Your task to perform on an android device: Search for Mexican restaurants on Maps Image 0: 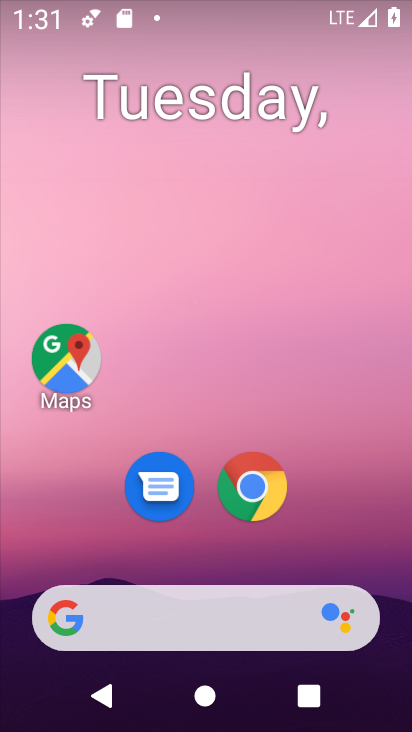
Step 0: press home button
Your task to perform on an android device: Search for Mexican restaurants on Maps Image 1: 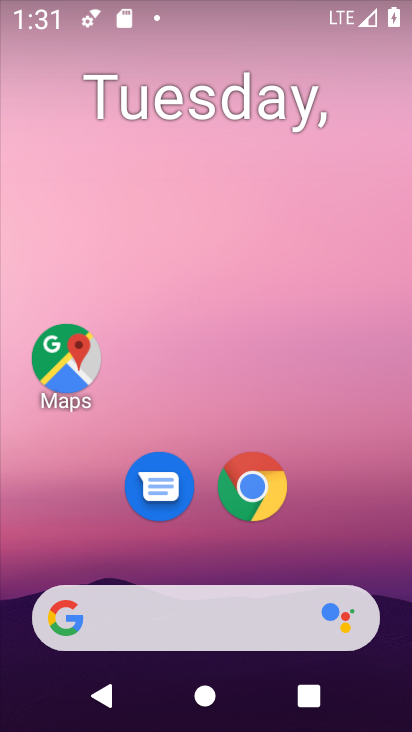
Step 1: drag from (330, 528) to (346, 66)
Your task to perform on an android device: Search for Mexican restaurants on Maps Image 2: 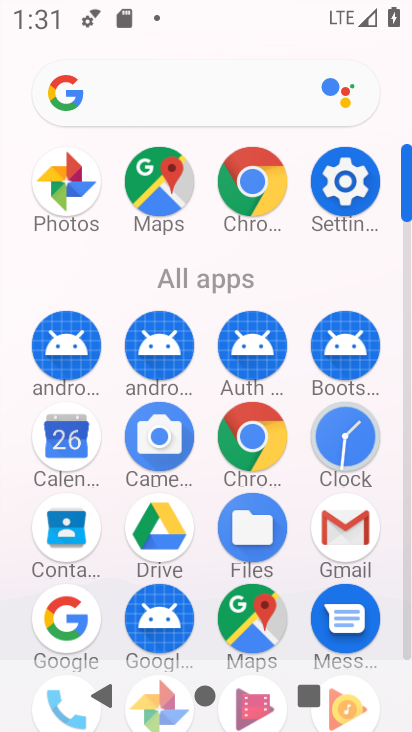
Step 2: click (153, 201)
Your task to perform on an android device: Search for Mexican restaurants on Maps Image 3: 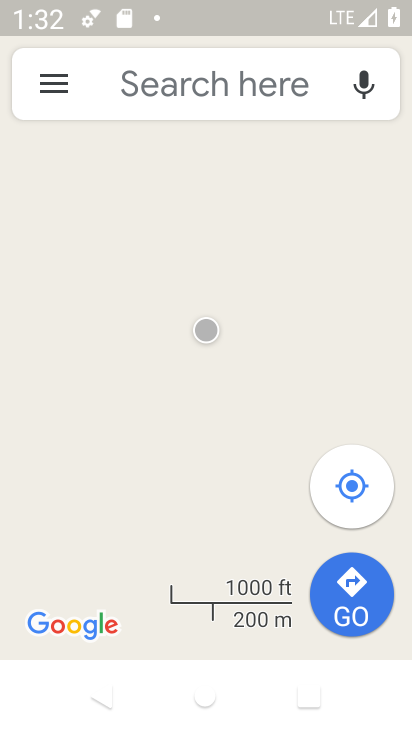
Step 3: click (186, 87)
Your task to perform on an android device: Search for Mexican restaurants on Maps Image 4: 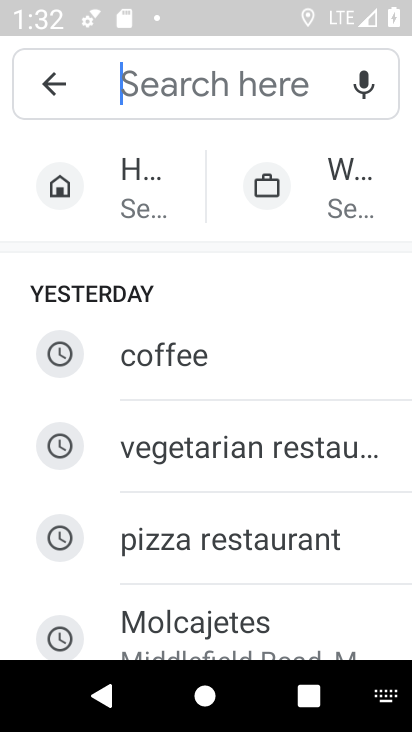
Step 4: type "mexcian restaurants"
Your task to perform on an android device: Search for Mexican restaurants on Maps Image 5: 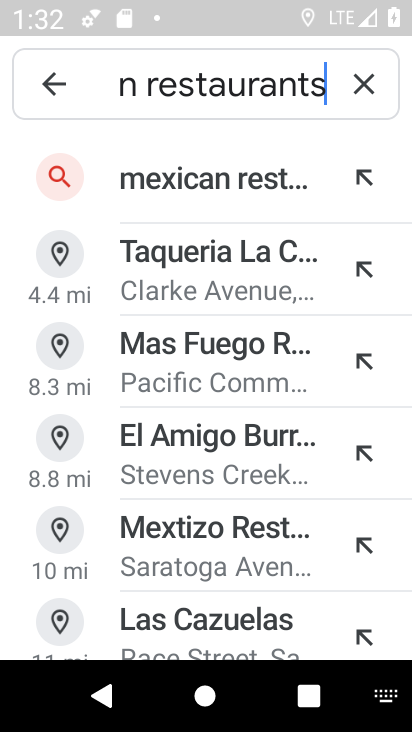
Step 5: click (220, 173)
Your task to perform on an android device: Search for Mexican restaurants on Maps Image 6: 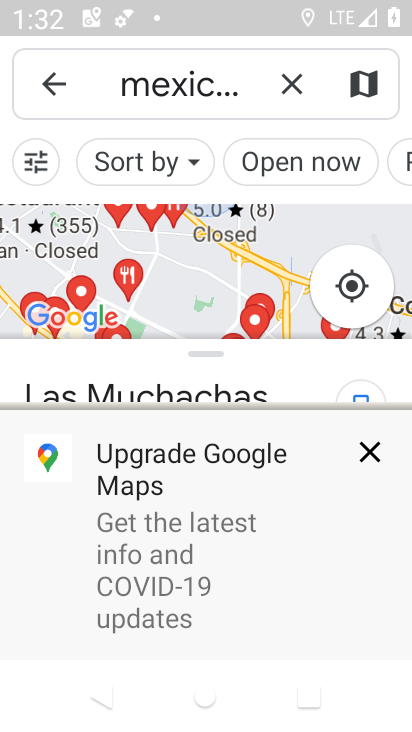
Step 6: task complete